Your task to perform on an android device: allow cookies in the chrome app Image 0: 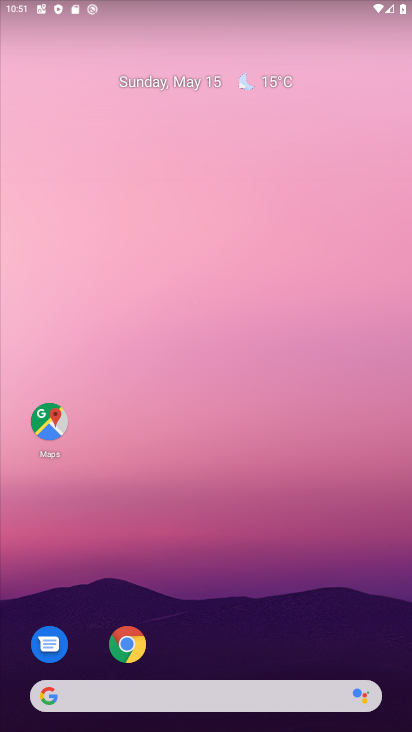
Step 0: click (129, 641)
Your task to perform on an android device: allow cookies in the chrome app Image 1: 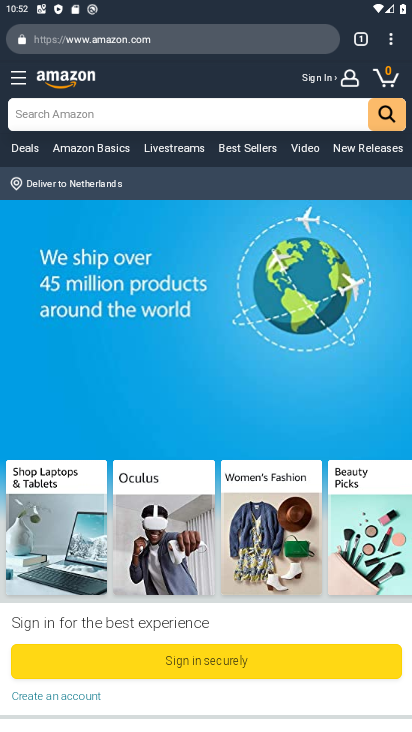
Step 1: click (392, 40)
Your task to perform on an android device: allow cookies in the chrome app Image 2: 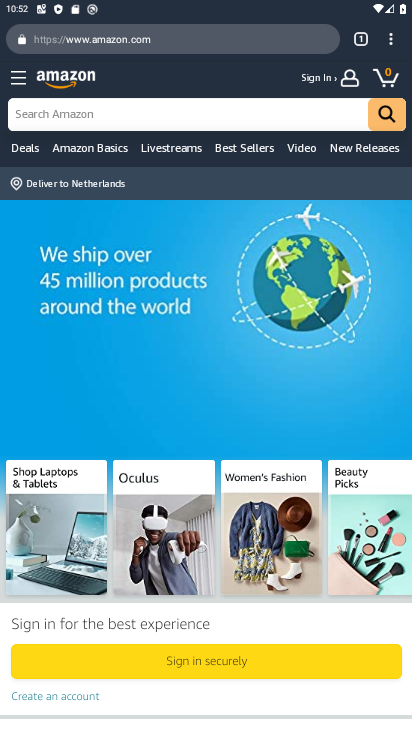
Step 2: click (394, 47)
Your task to perform on an android device: allow cookies in the chrome app Image 3: 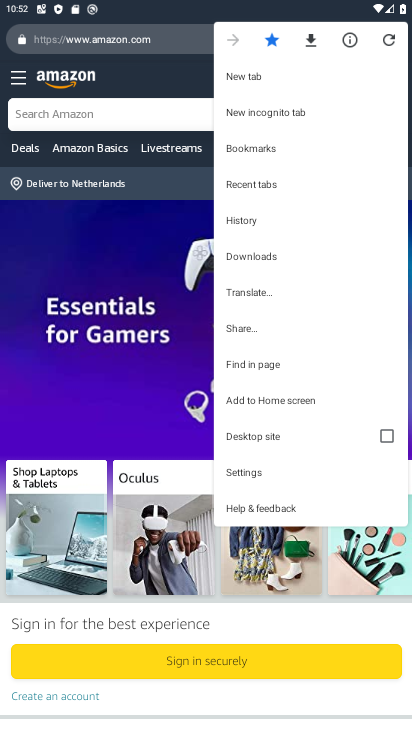
Step 3: click (276, 467)
Your task to perform on an android device: allow cookies in the chrome app Image 4: 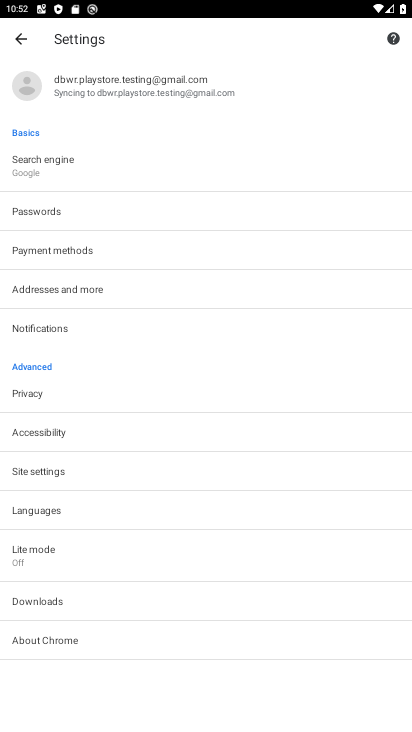
Step 4: click (61, 475)
Your task to perform on an android device: allow cookies in the chrome app Image 5: 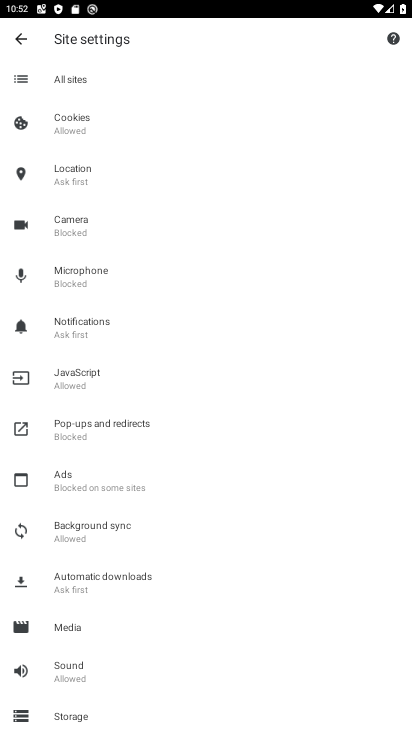
Step 5: click (99, 113)
Your task to perform on an android device: allow cookies in the chrome app Image 6: 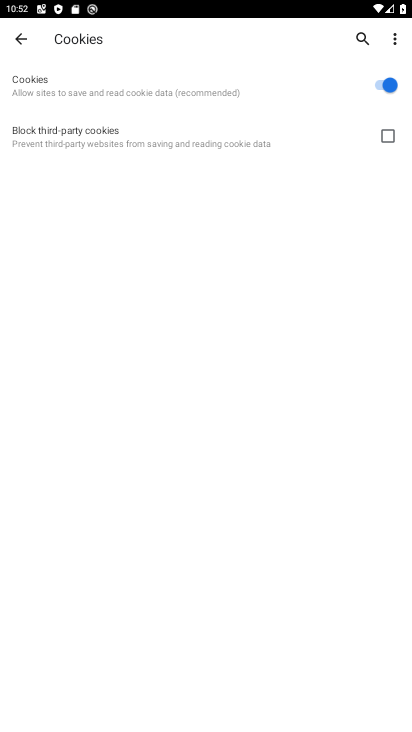
Step 6: task complete